Your task to perform on an android device: see creations saved in the google photos Image 0: 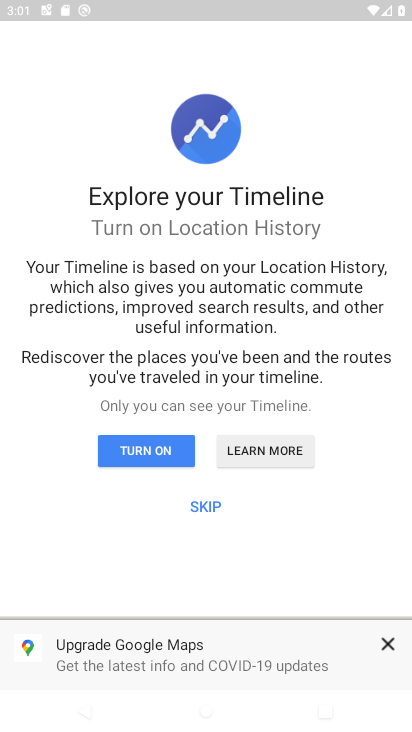
Step 0: click (205, 502)
Your task to perform on an android device: see creations saved in the google photos Image 1: 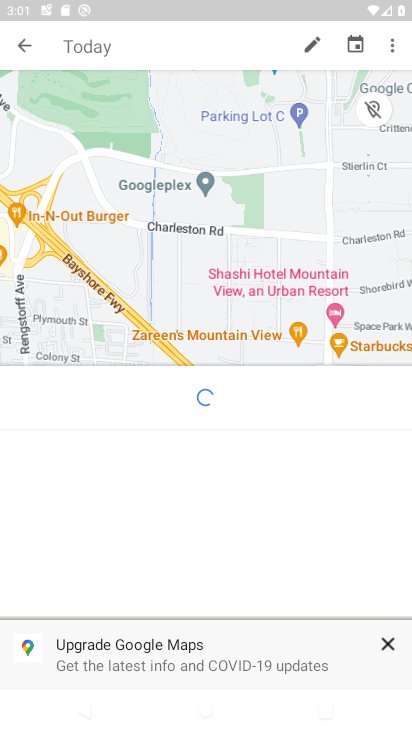
Step 1: drag from (236, 538) to (391, 134)
Your task to perform on an android device: see creations saved in the google photos Image 2: 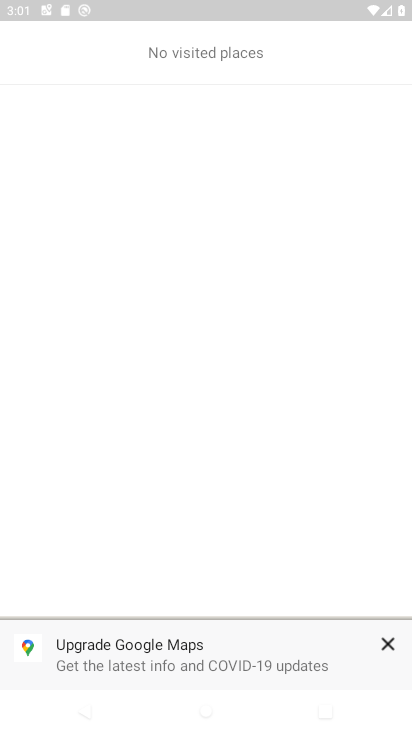
Step 2: drag from (288, 476) to (307, 214)
Your task to perform on an android device: see creations saved in the google photos Image 3: 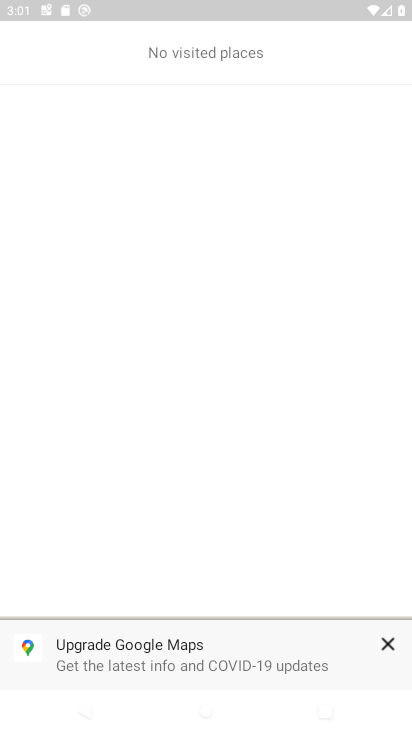
Step 3: drag from (283, 206) to (281, 686)
Your task to perform on an android device: see creations saved in the google photos Image 4: 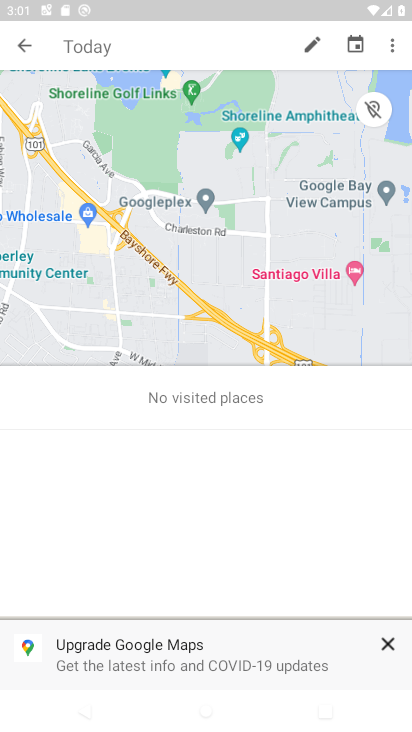
Step 4: press home button
Your task to perform on an android device: see creations saved in the google photos Image 5: 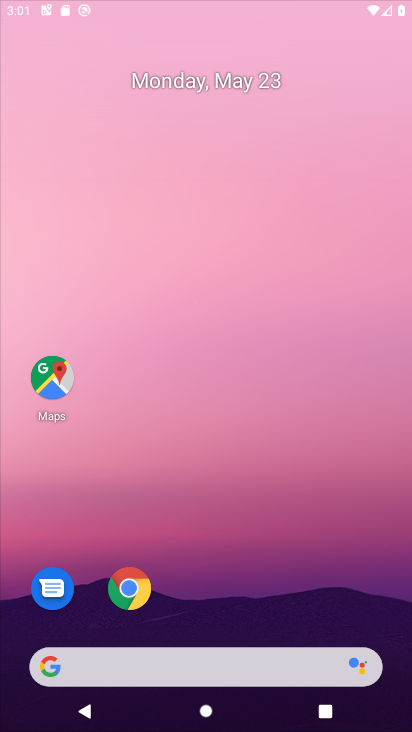
Step 5: drag from (191, 573) to (288, 194)
Your task to perform on an android device: see creations saved in the google photos Image 6: 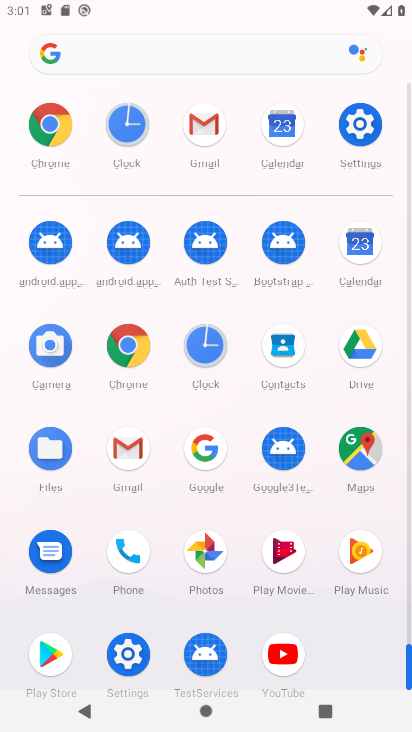
Step 6: click (173, 552)
Your task to perform on an android device: see creations saved in the google photos Image 7: 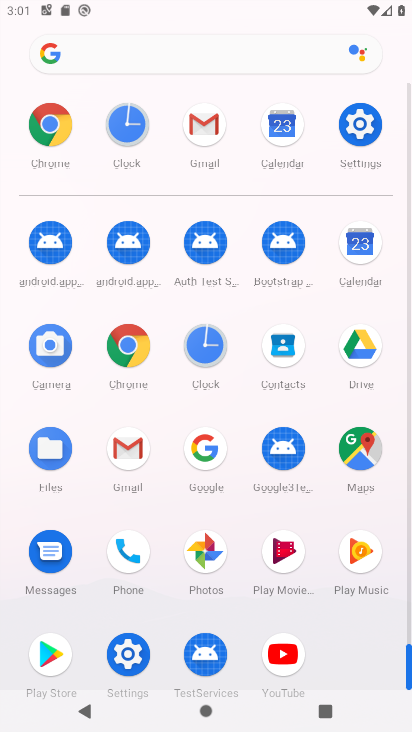
Step 7: click (177, 552)
Your task to perform on an android device: see creations saved in the google photos Image 8: 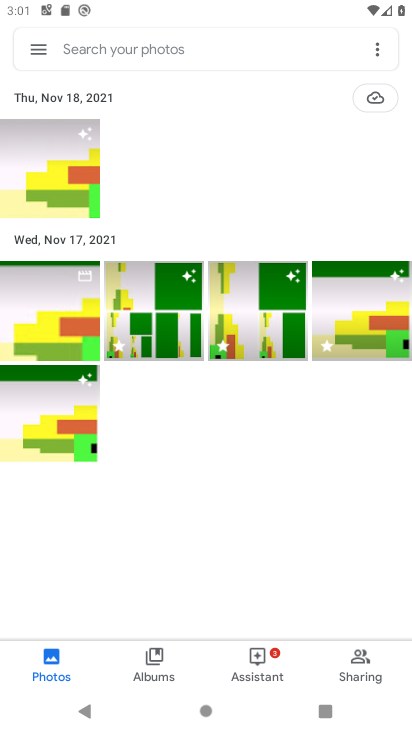
Step 8: click (170, 51)
Your task to perform on an android device: see creations saved in the google photos Image 9: 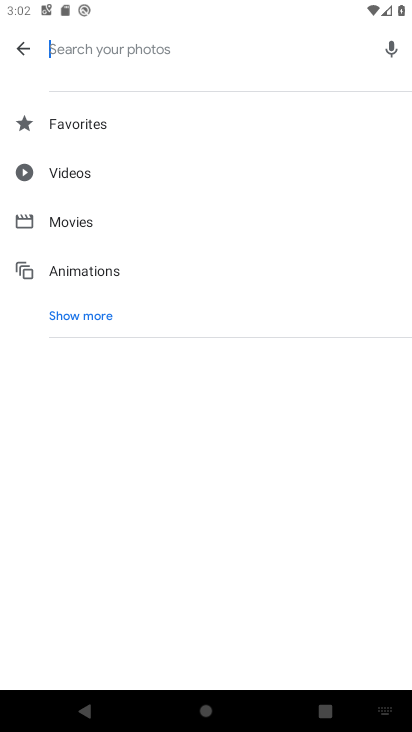
Step 9: click (108, 307)
Your task to perform on an android device: see creations saved in the google photos Image 10: 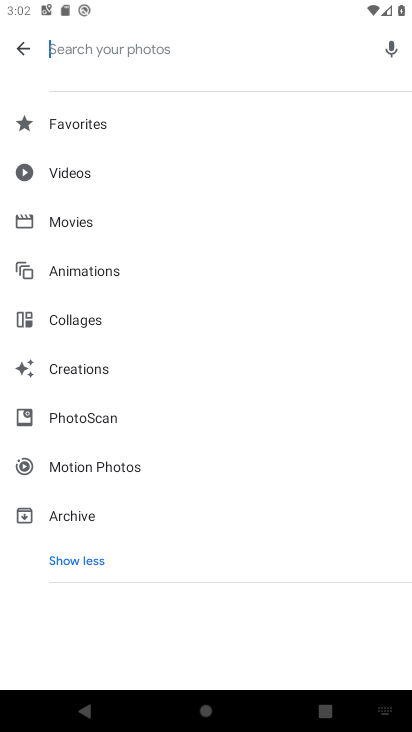
Step 10: click (81, 376)
Your task to perform on an android device: see creations saved in the google photos Image 11: 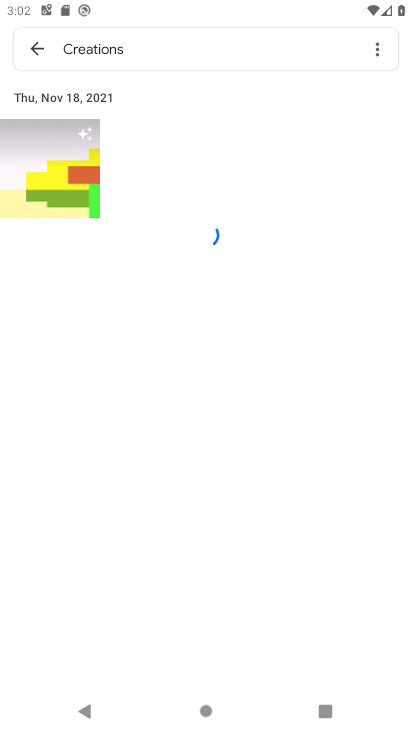
Step 11: drag from (271, 514) to (340, 39)
Your task to perform on an android device: see creations saved in the google photos Image 12: 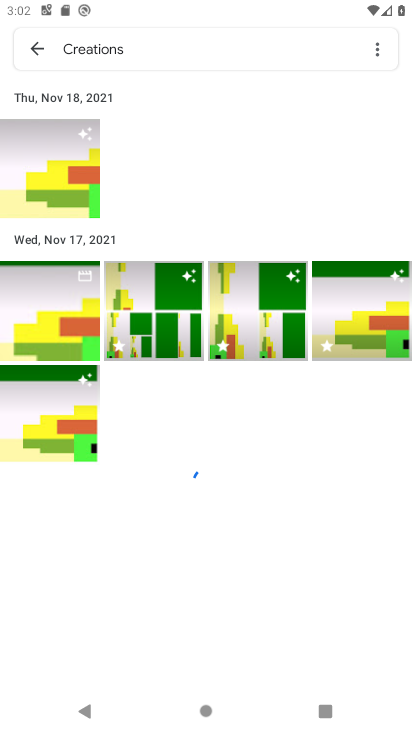
Step 12: click (38, 330)
Your task to perform on an android device: see creations saved in the google photos Image 13: 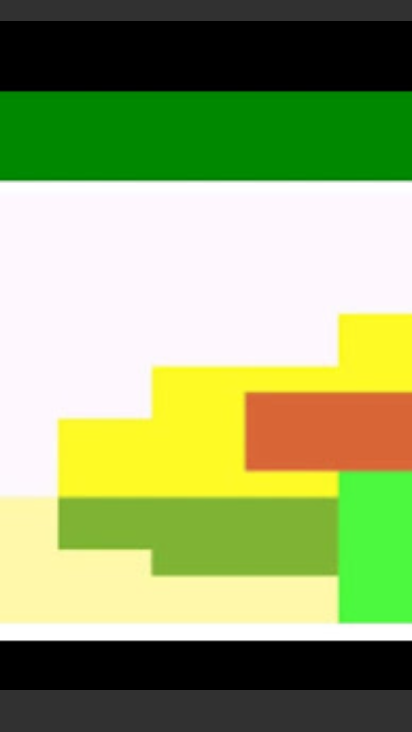
Step 13: task complete